Your task to perform on an android device: What's on my calendar today? Image 0: 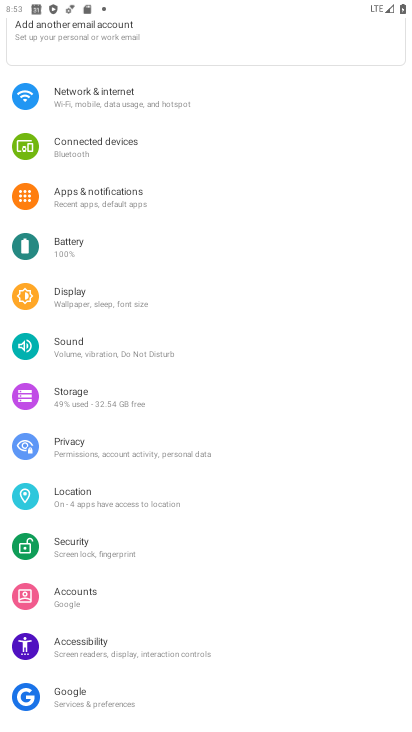
Step 0: press home button
Your task to perform on an android device: What's on my calendar today? Image 1: 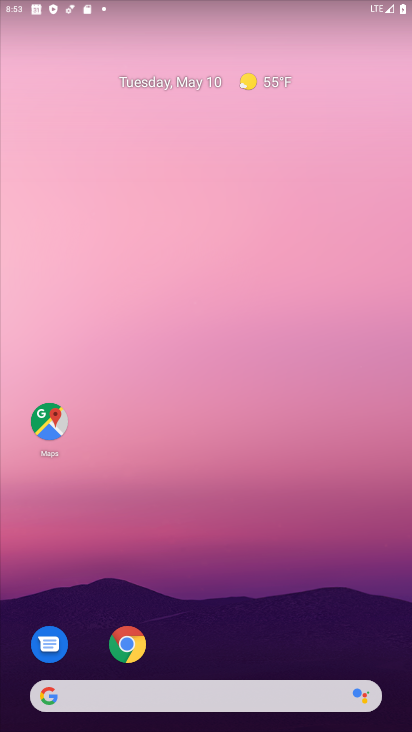
Step 1: drag from (289, 619) to (280, 111)
Your task to perform on an android device: What's on my calendar today? Image 2: 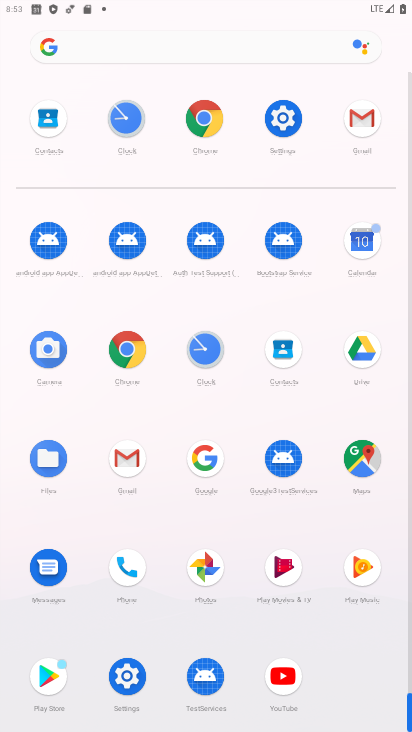
Step 2: click (363, 253)
Your task to perform on an android device: What's on my calendar today? Image 3: 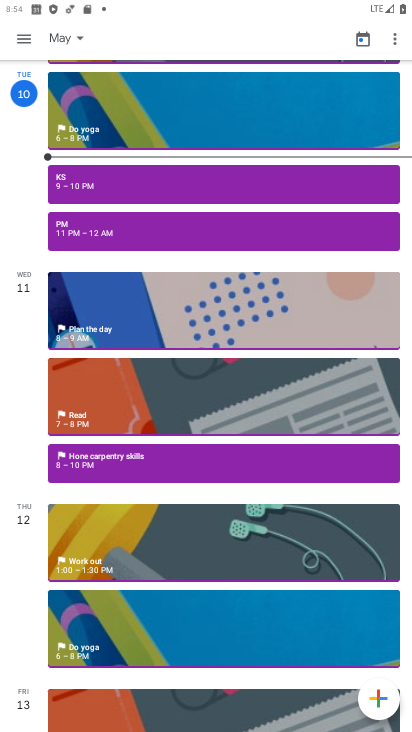
Step 3: task complete